Your task to perform on an android device: turn on priority inbox in the gmail app Image 0: 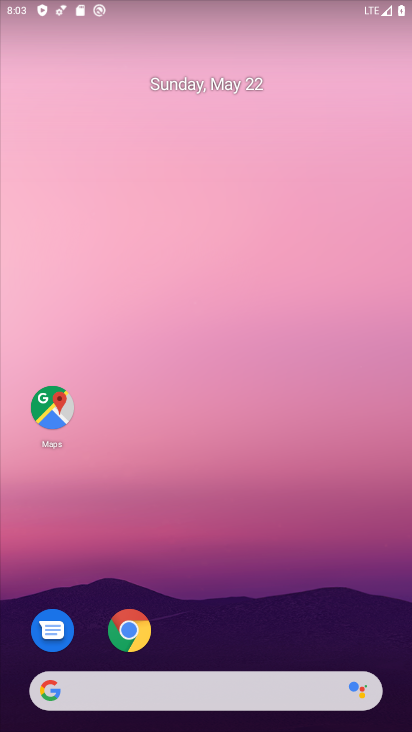
Step 0: drag from (390, 647) to (302, 108)
Your task to perform on an android device: turn on priority inbox in the gmail app Image 1: 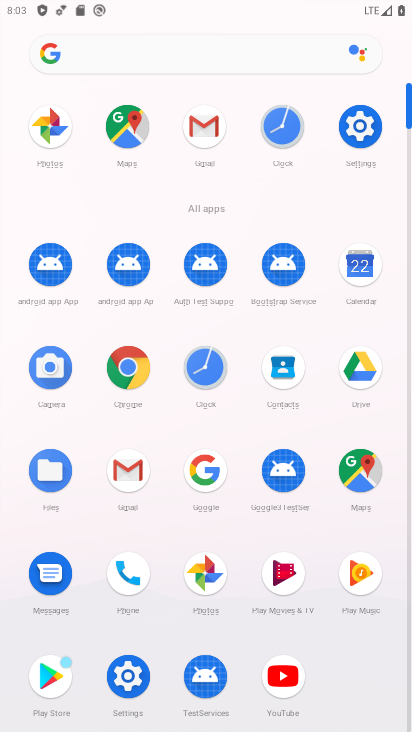
Step 1: click (124, 468)
Your task to perform on an android device: turn on priority inbox in the gmail app Image 2: 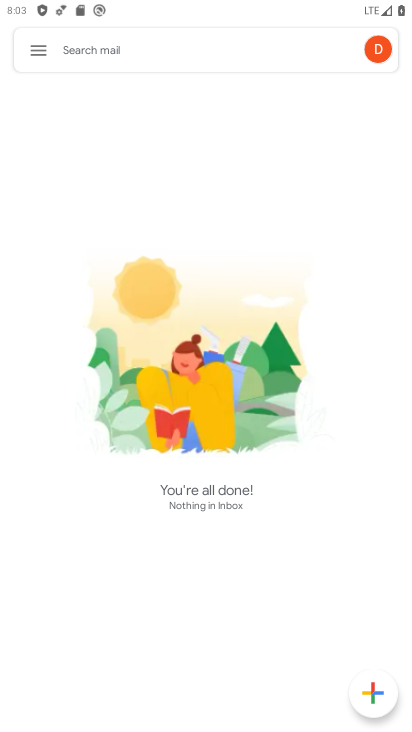
Step 2: click (41, 56)
Your task to perform on an android device: turn on priority inbox in the gmail app Image 3: 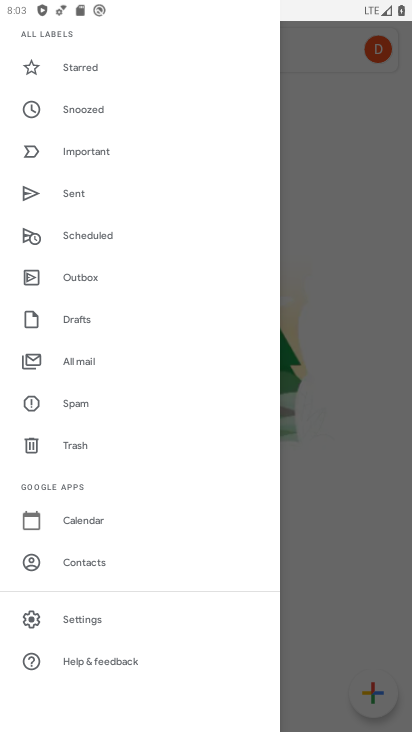
Step 3: click (72, 617)
Your task to perform on an android device: turn on priority inbox in the gmail app Image 4: 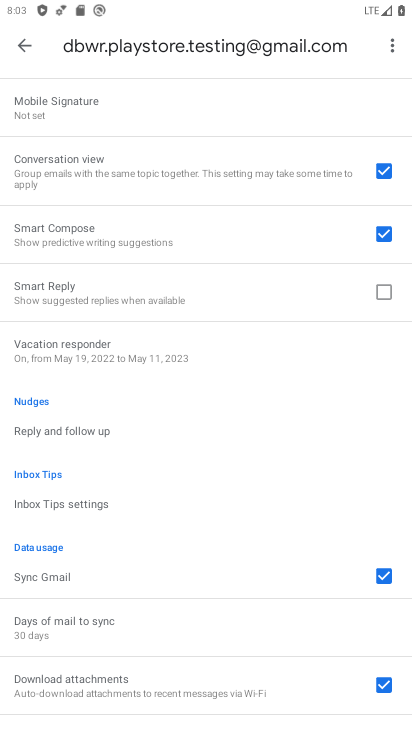
Step 4: drag from (271, 195) to (247, 506)
Your task to perform on an android device: turn on priority inbox in the gmail app Image 5: 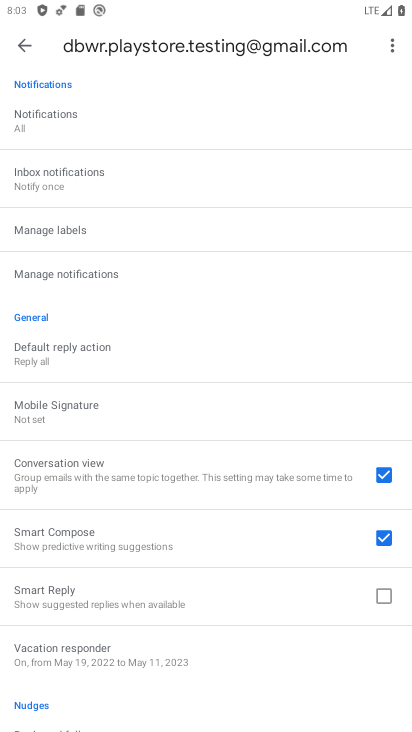
Step 5: drag from (258, 230) to (192, 601)
Your task to perform on an android device: turn on priority inbox in the gmail app Image 6: 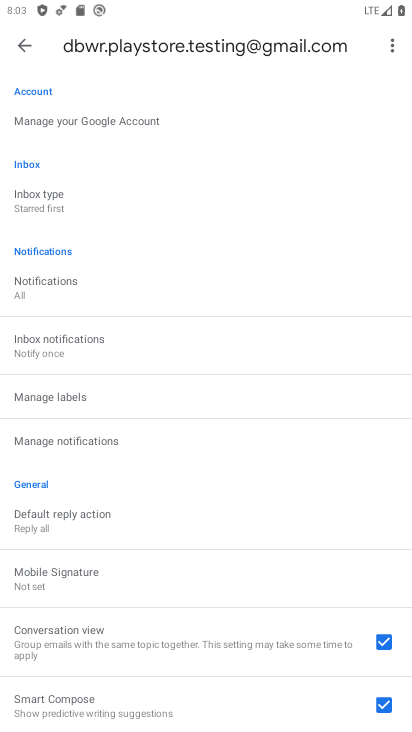
Step 6: click (36, 188)
Your task to perform on an android device: turn on priority inbox in the gmail app Image 7: 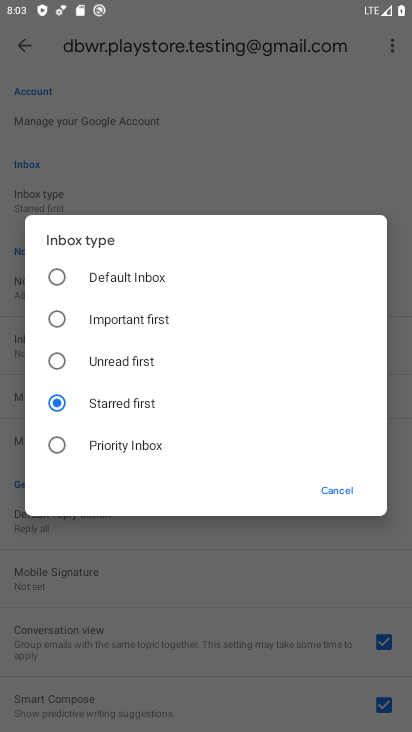
Step 7: click (52, 441)
Your task to perform on an android device: turn on priority inbox in the gmail app Image 8: 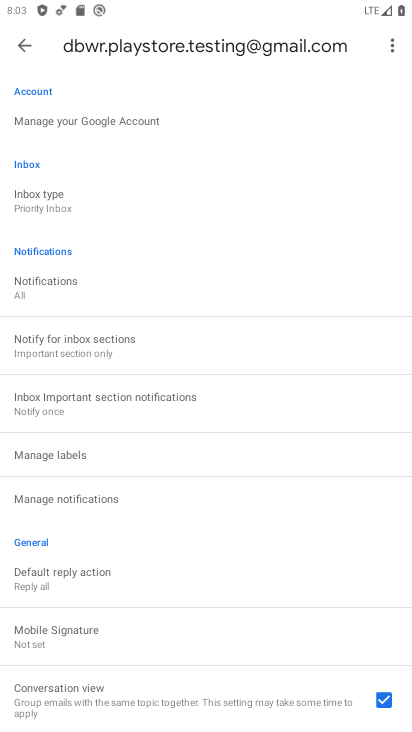
Step 8: task complete